Your task to perform on an android device: Check the weather Image 0: 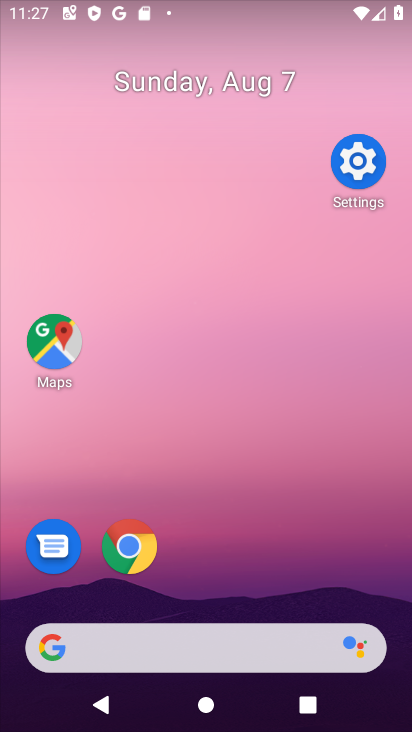
Step 0: click (151, 306)
Your task to perform on an android device: Check the weather Image 1: 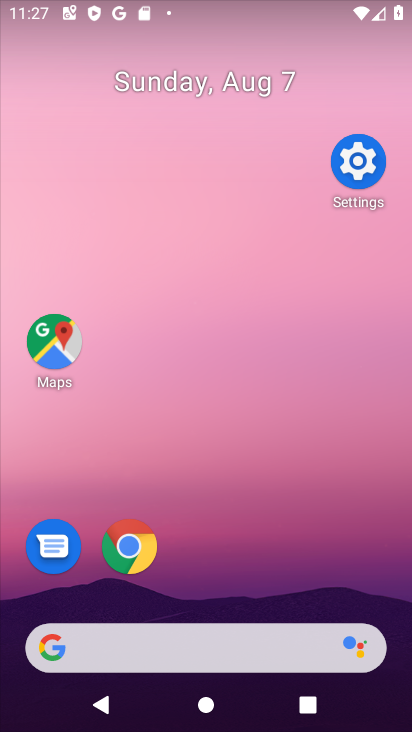
Step 1: drag from (276, 469) to (278, 400)
Your task to perform on an android device: Check the weather Image 2: 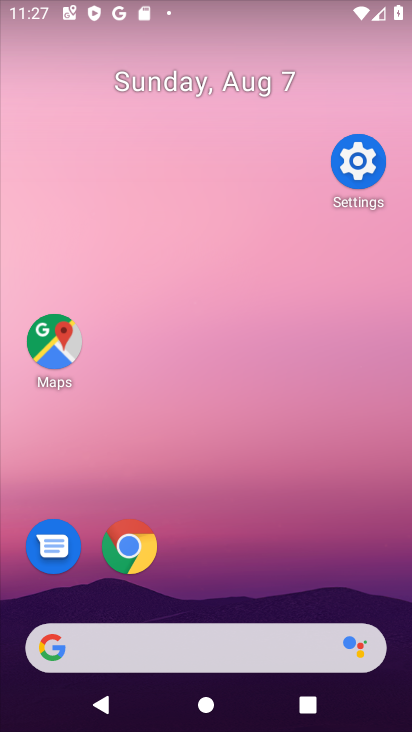
Step 2: drag from (276, 515) to (303, 218)
Your task to perform on an android device: Check the weather Image 3: 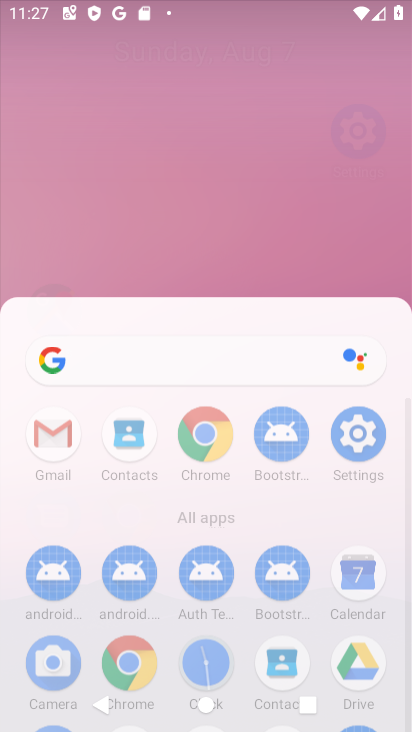
Step 3: drag from (260, 398) to (230, 163)
Your task to perform on an android device: Check the weather Image 4: 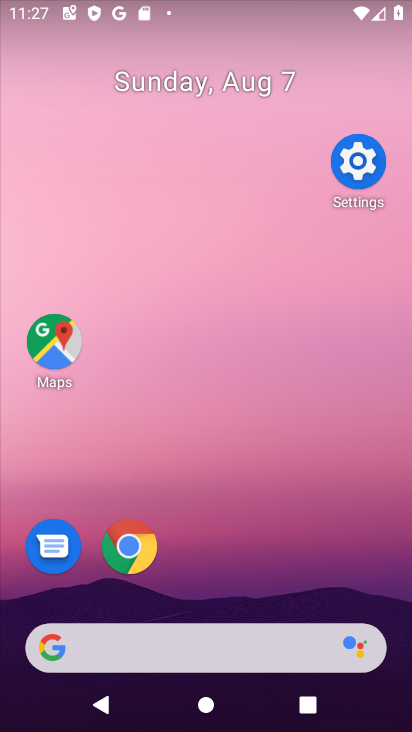
Step 4: drag from (301, 339) to (324, 20)
Your task to perform on an android device: Check the weather Image 5: 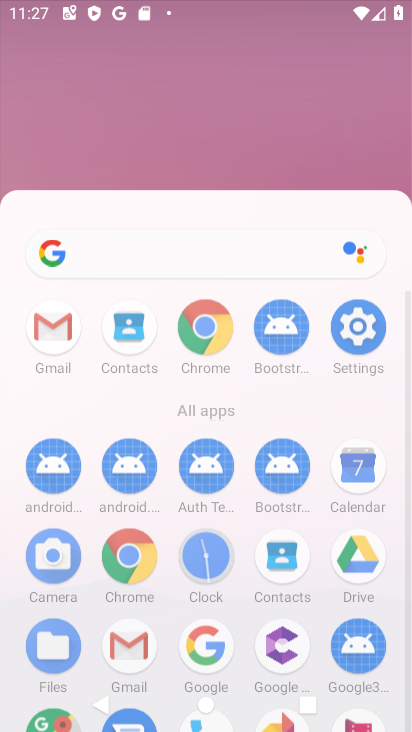
Step 5: drag from (300, 487) to (288, 177)
Your task to perform on an android device: Check the weather Image 6: 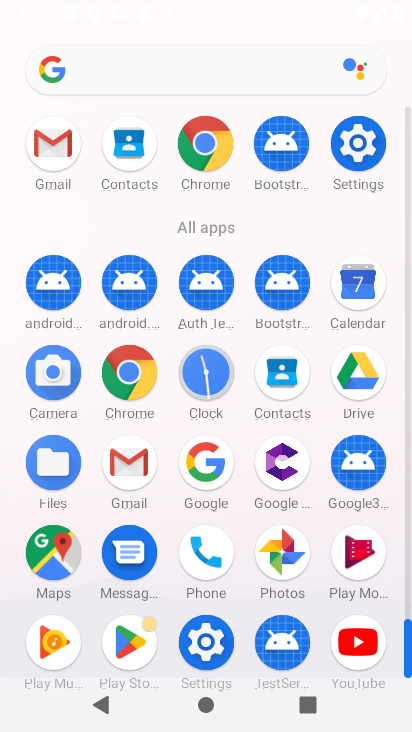
Step 6: click (321, 176)
Your task to perform on an android device: Check the weather Image 7: 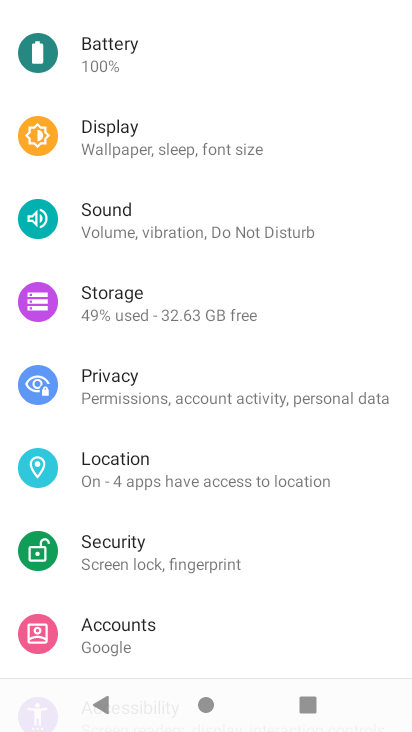
Step 7: press back button
Your task to perform on an android device: Check the weather Image 8: 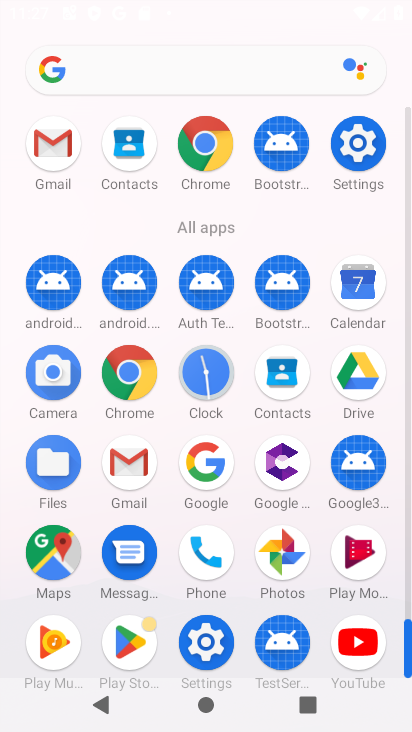
Step 8: drag from (213, 143) to (256, 151)
Your task to perform on an android device: Check the weather Image 9: 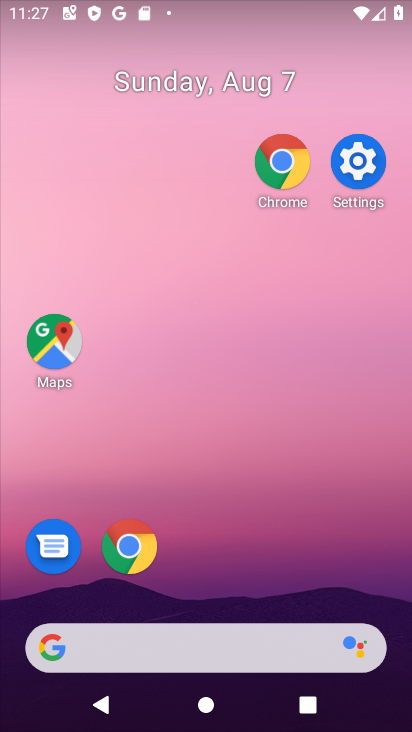
Step 9: click (286, 166)
Your task to perform on an android device: Check the weather Image 10: 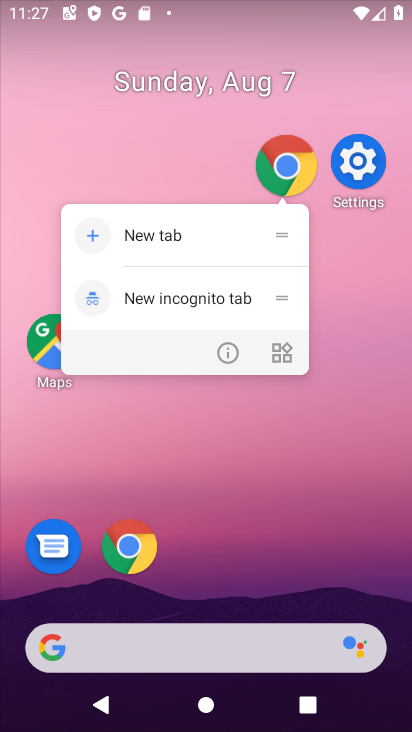
Step 10: click (294, 176)
Your task to perform on an android device: Check the weather Image 11: 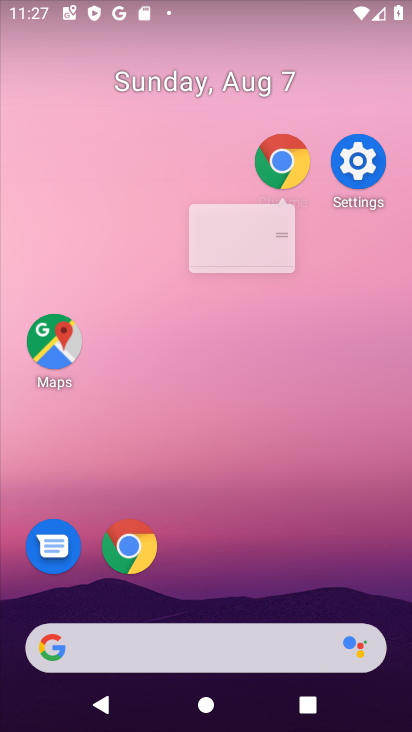
Step 11: click (289, 176)
Your task to perform on an android device: Check the weather Image 12: 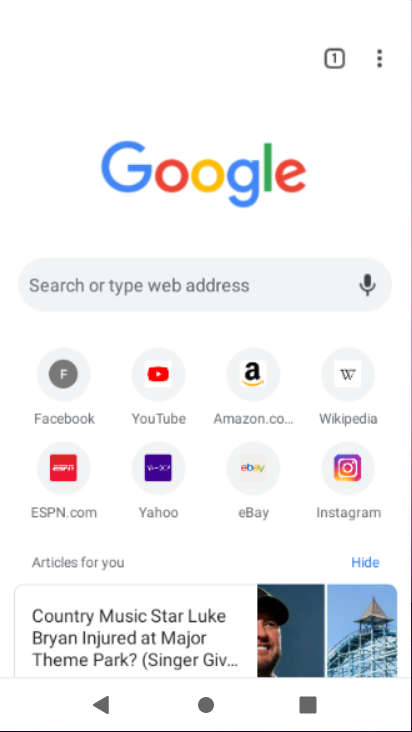
Step 12: click (333, 193)
Your task to perform on an android device: Check the weather Image 13: 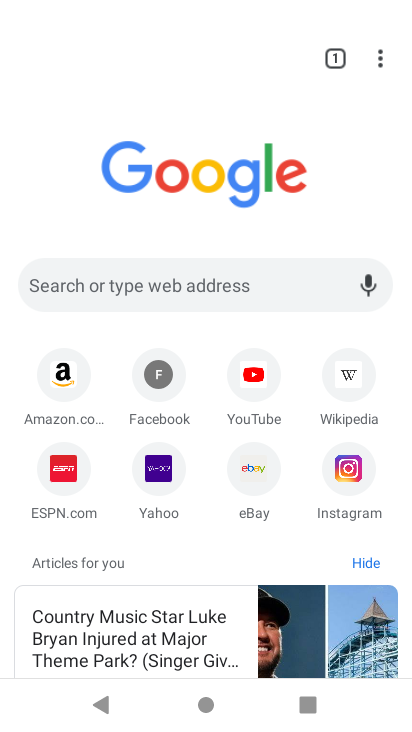
Step 13: click (61, 292)
Your task to perform on an android device: Check the weather Image 14: 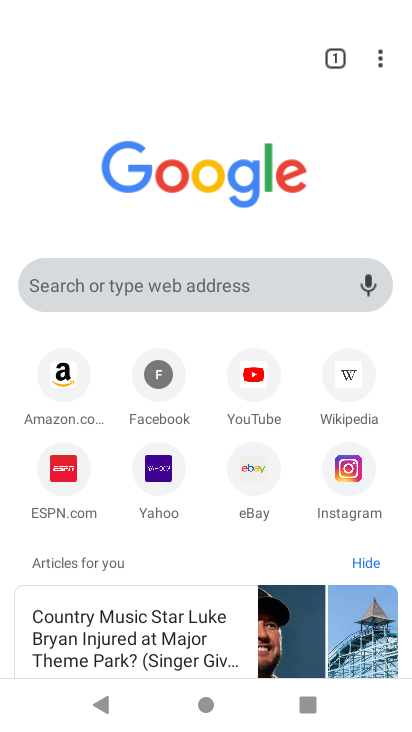
Step 14: click (69, 294)
Your task to perform on an android device: Check the weather Image 15: 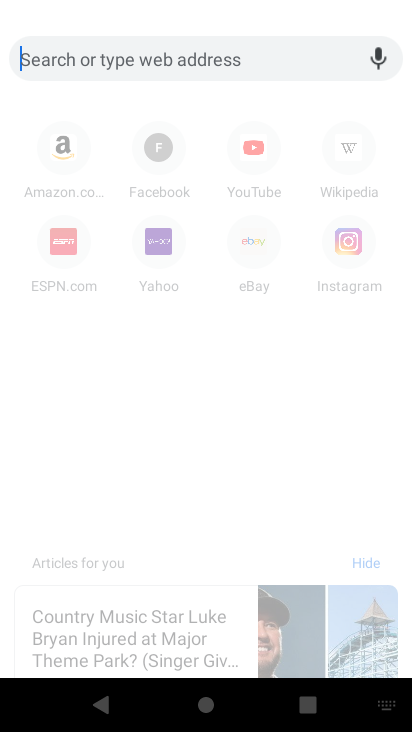
Step 15: type "weather"
Your task to perform on an android device: Check the weather Image 16: 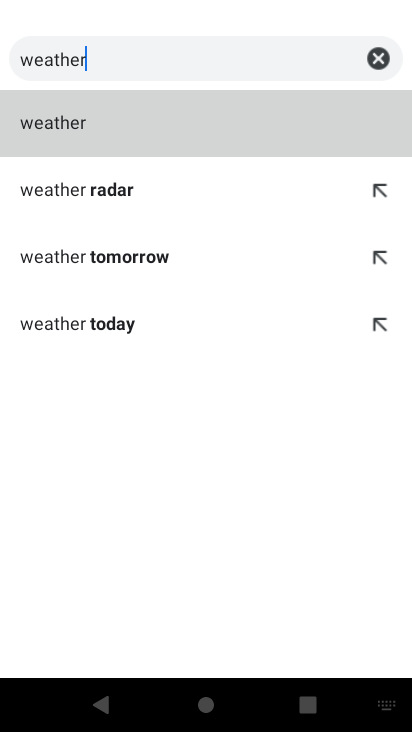
Step 16: click (118, 265)
Your task to perform on an android device: Check the weather Image 17: 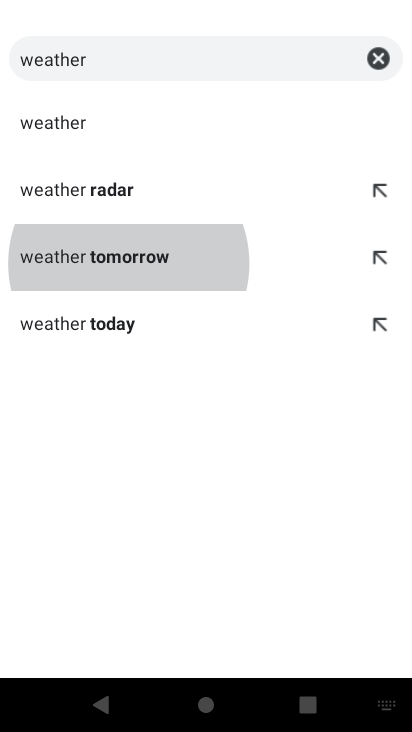
Step 17: click (118, 259)
Your task to perform on an android device: Check the weather Image 18: 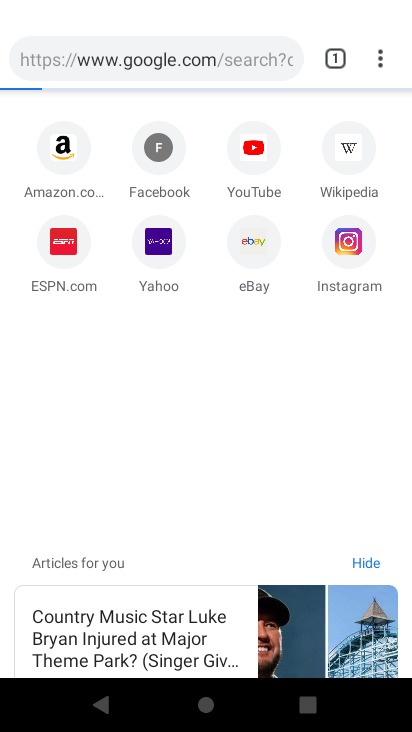
Step 18: click (117, 251)
Your task to perform on an android device: Check the weather Image 19: 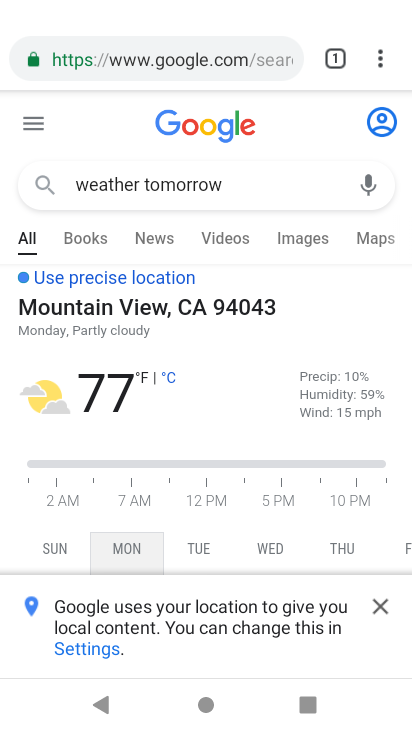
Step 19: click (264, 194)
Your task to perform on an android device: Check the weather Image 20: 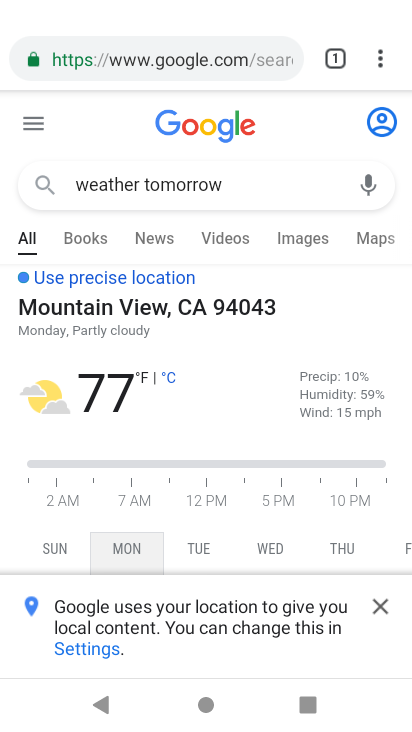
Step 20: click (267, 197)
Your task to perform on an android device: Check the weather Image 21: 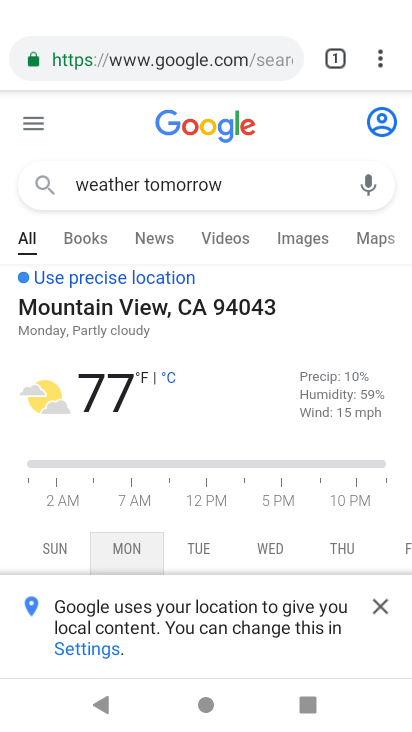
Step 21: click (267, 197)
Your task to perform on an android device: Check the weather Image 22: 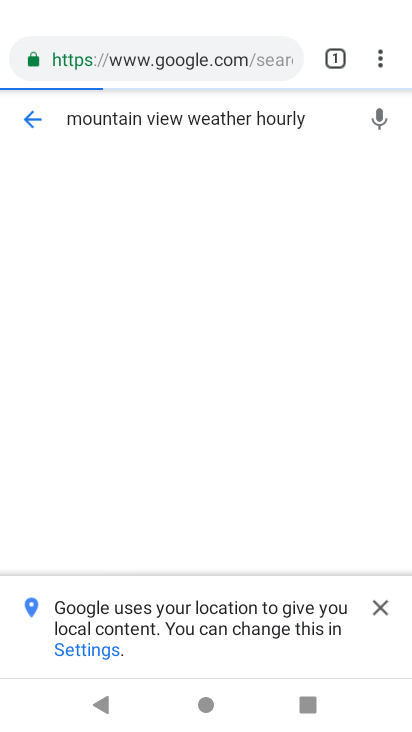
Step 22: task complete